Your task to perform on an android device: Open Chrome and go to the settings page Image 0: 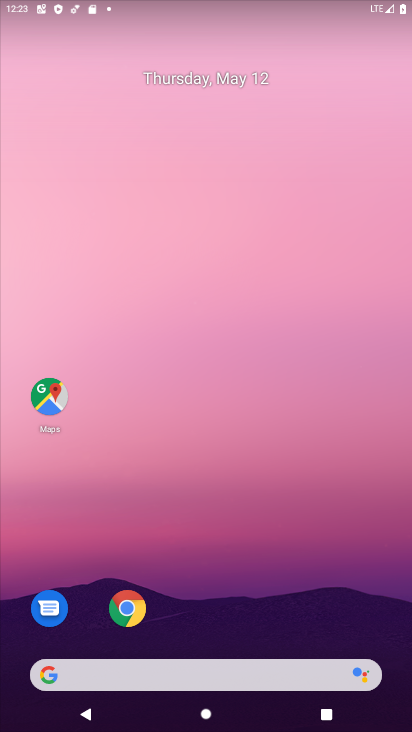
Step 0: click (137, 621)
Your task to perform on an android device: Open Chrome and go to the settings page Image 1: 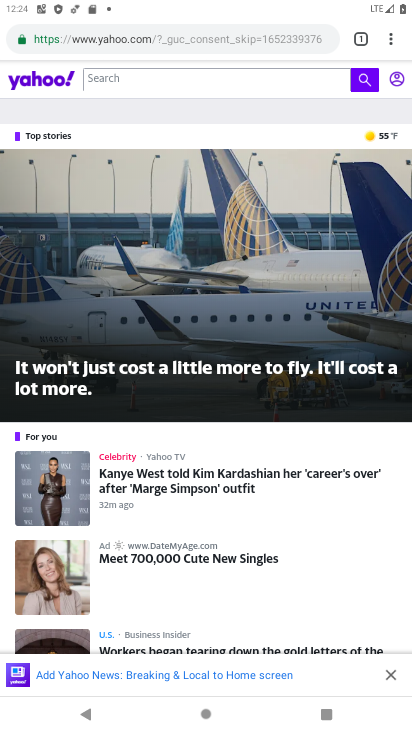
Step 1: task complete